Your task to perform on an android device: Turn off the flashlight Image 0: 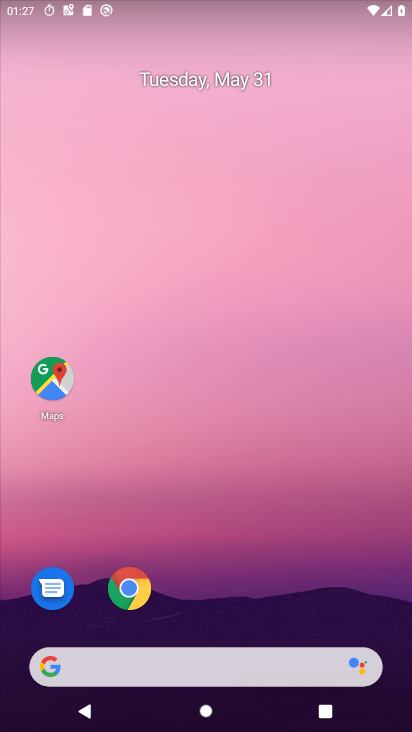
Step 0: drag from (189, 678) to (183, 3)
Your task to perform on an android device: Turn off the flashlight Image 1: 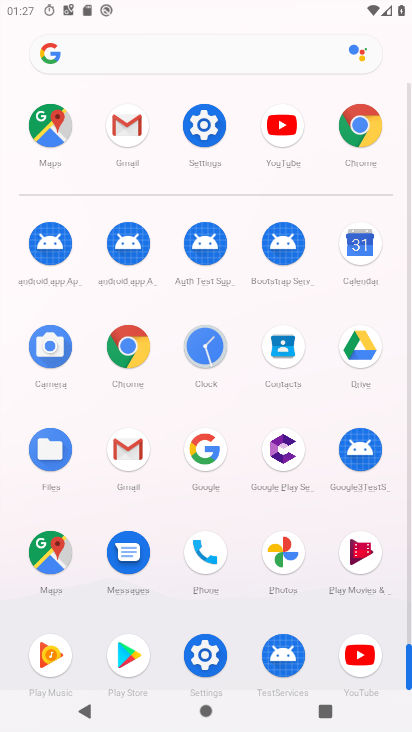
Step 1: click (224, 120)
Your task to perform on an android device: Turn off the flashlight Image 2: 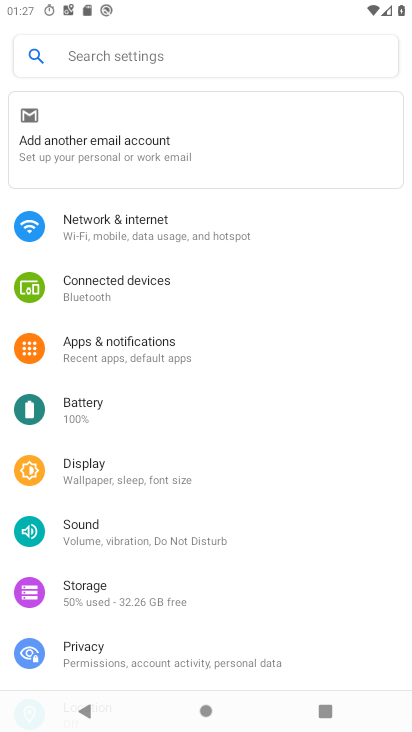
Step 2: click (155, 235)
Your task to perform on an android device: Turn off the flashlight Image 3: 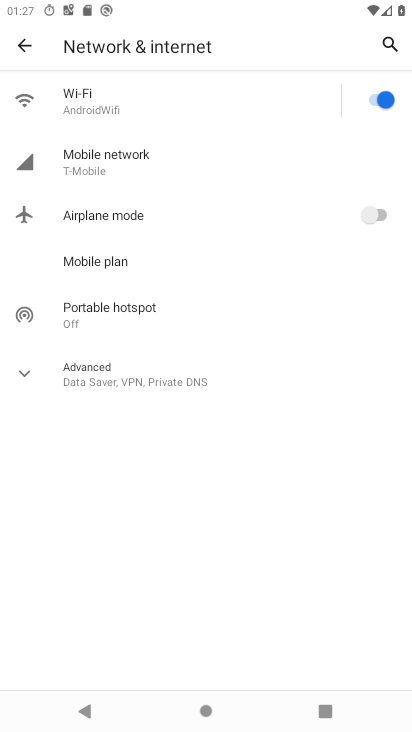
Step 3: task complete